Your task to perform on an android device: Open settings Image 0: 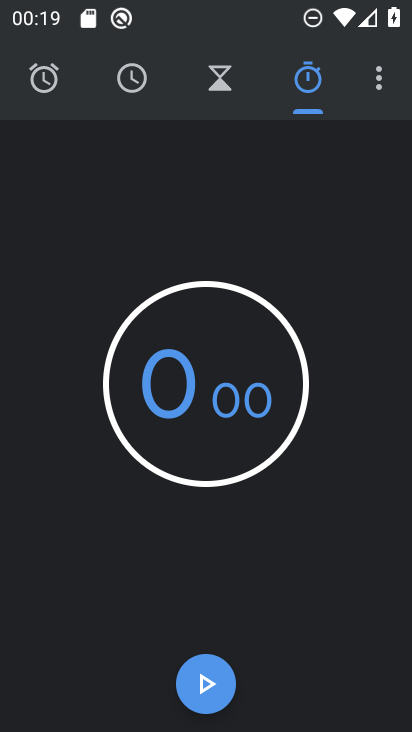
Step 0: press home button
Your task to perform on an android device: Open settings Image 1: 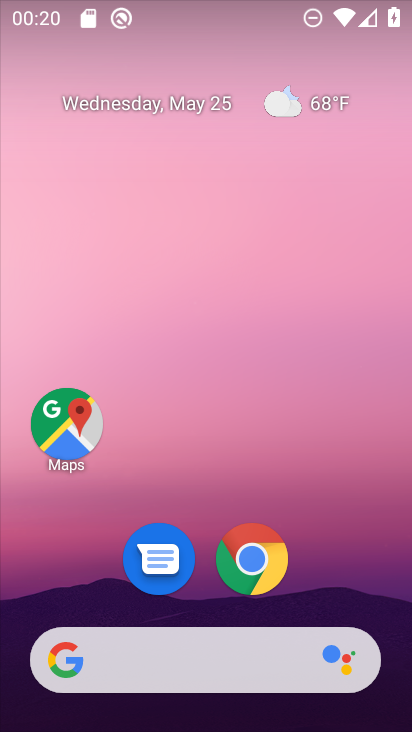
Step 1: drag from (389, 619) to (341, 120)
Your task to perform on an android device: Open settings Image 2: 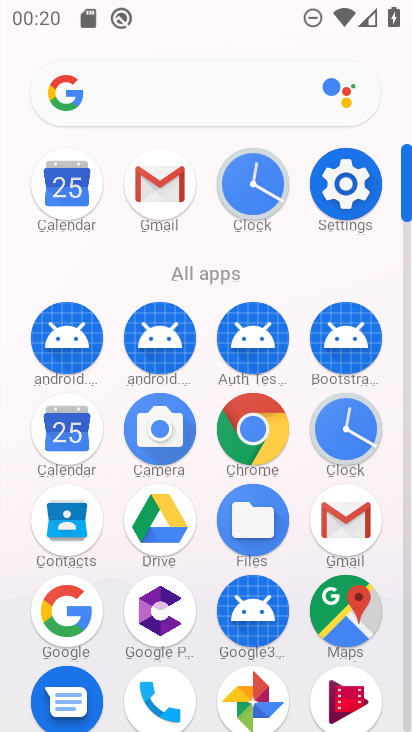
Step 2: click (408, 678)
Your task to perform on an android device: Open settings Image 3: 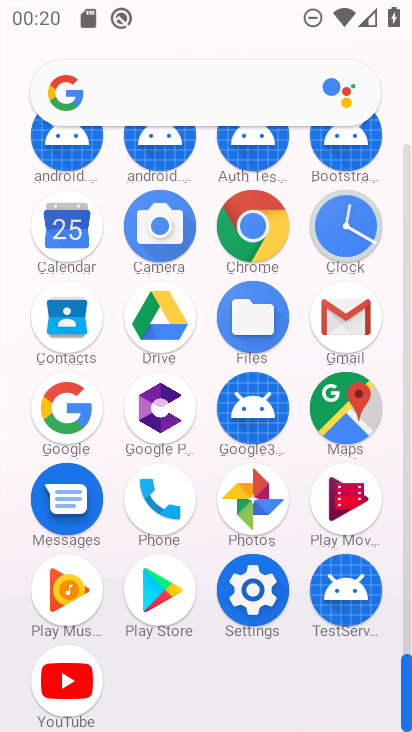
Step 3: click (252, 592)
Your task to perform on an android device: Open settings Image 4: 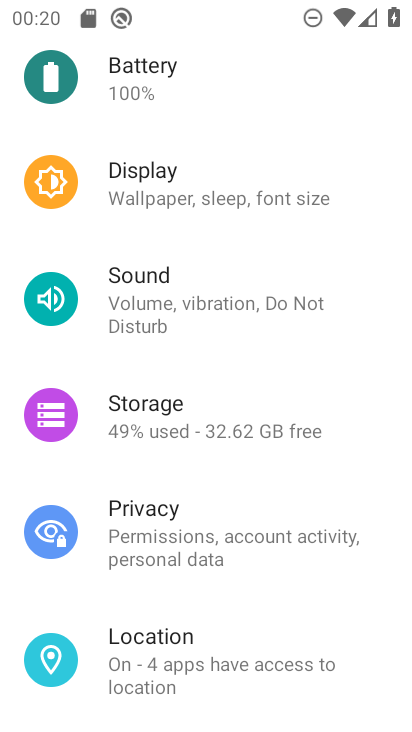
Step 4: task complete